Your task to perform on an android device: Add "dell xps" to the cart on amazon.com Image 0: 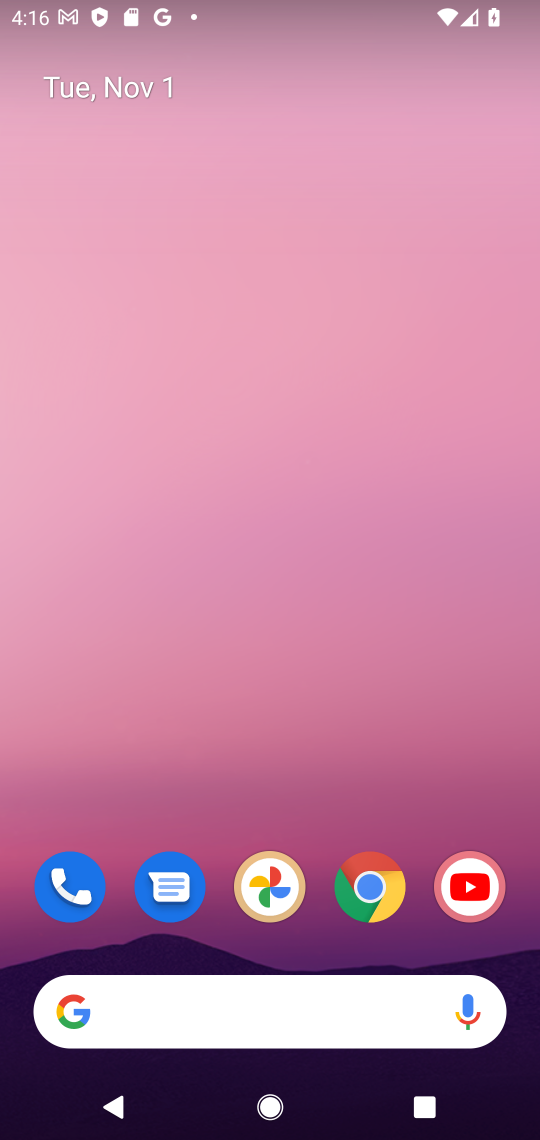
Step 0: drag from (325, 945) to (324, 157)
Your task to perform on an android device: Add "dell xps" to the cart on amazon.com Image 1: 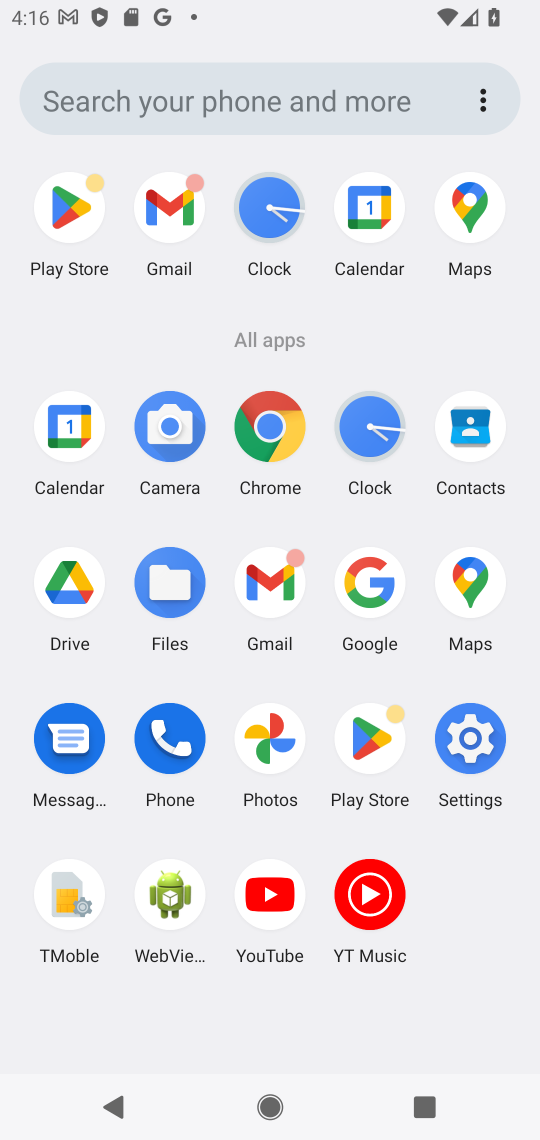
Step 1: click (277, 426)
Your task to perform on an android device: Add "dell xps" to the cart on amazon.com Image 2: 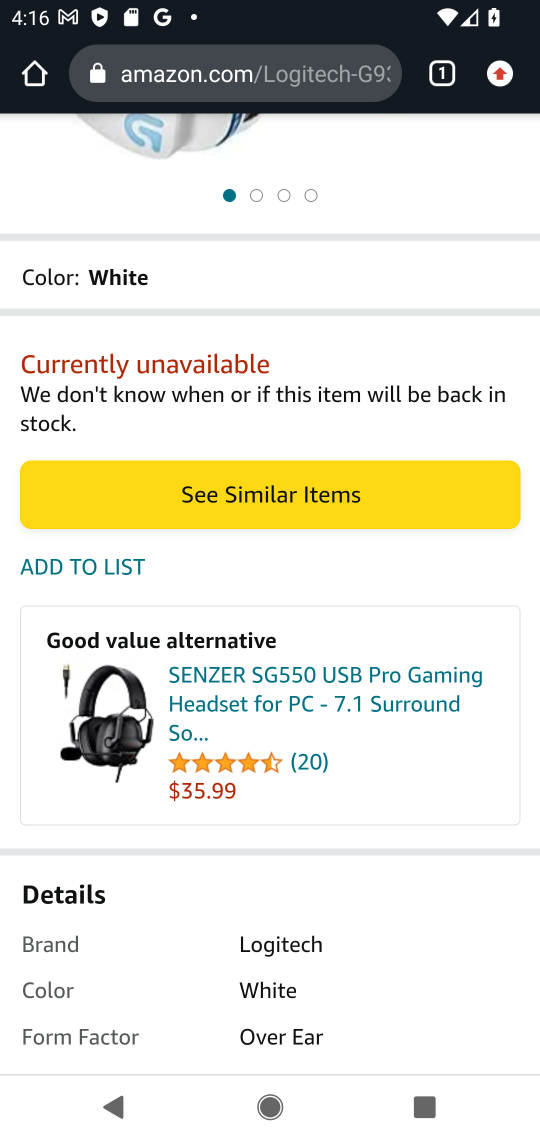
Step 2: drag from (357, 122) to (315, 655)
Your task to perform on an android device: Add "dell xps" to the cart on amazon.com Image 3: 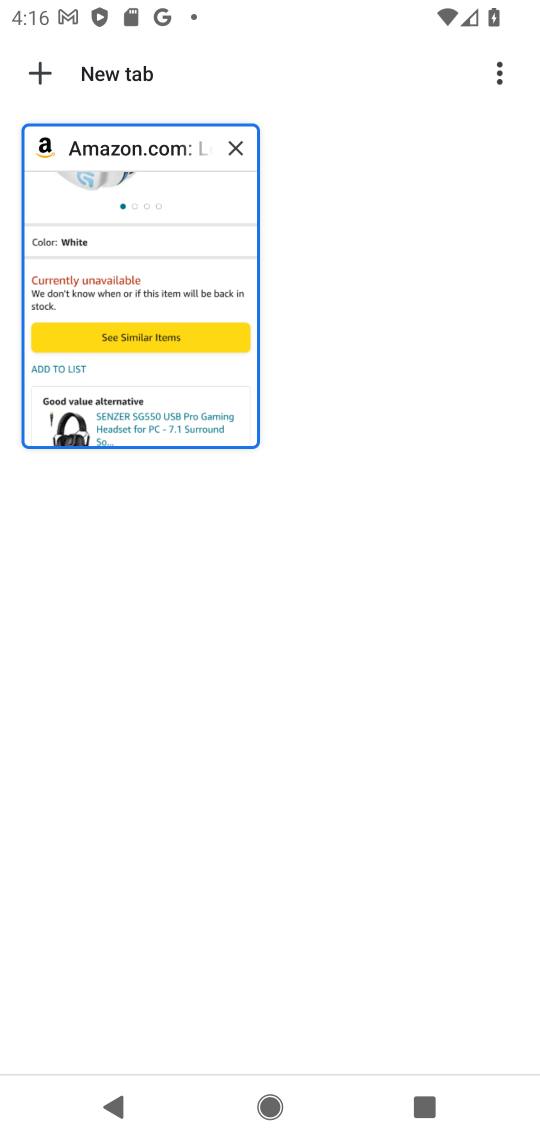
Step 3: click (91, 204)
Your task to perform on an android device: Add "dell xps" to the cart on amazon.com Image 4: 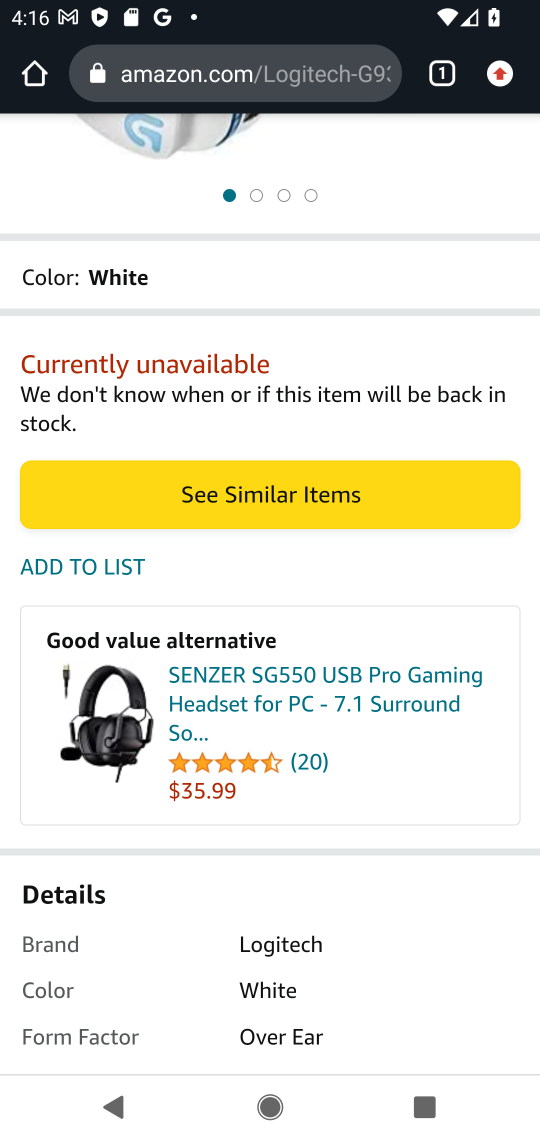
Step 4: click (256, 70)
Your task to perform on an android device: Add "dell xps" to the cart on amazon.com Image 5: 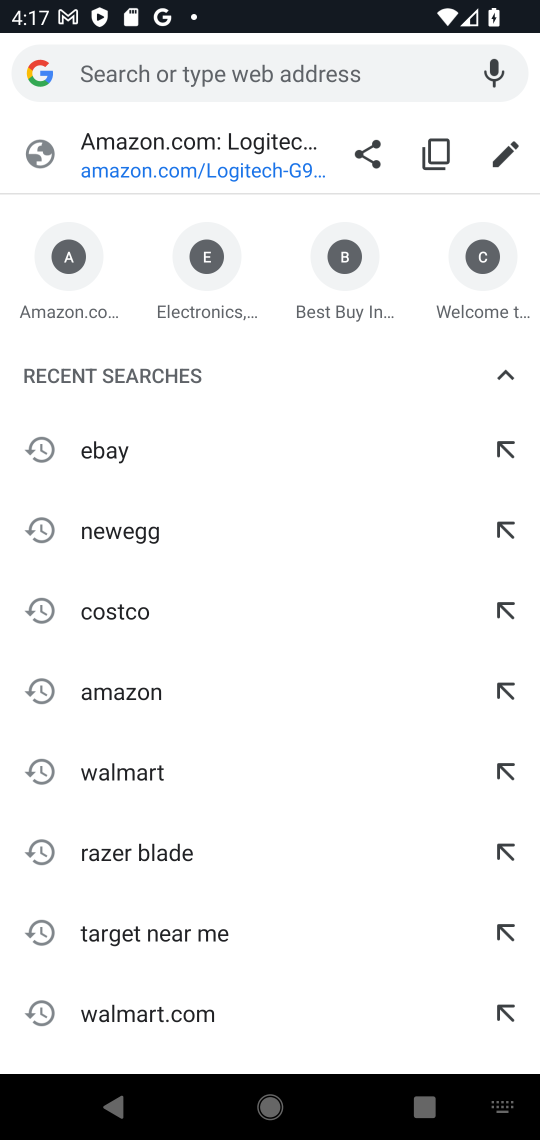
Step 5: type "amazon.com"
Your task to perform on an android device: Add "dell xps" to the cart on amazon.com Image 6: 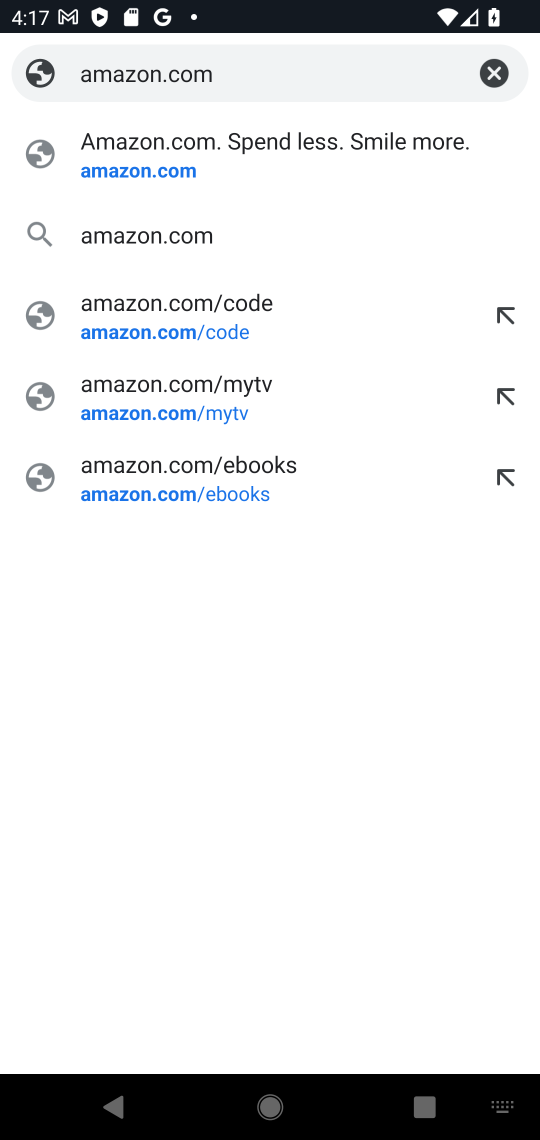
Step 6: press enter
Your task to perform on an android device: Add "dell xps" to the cart on amazon.com Image 7: 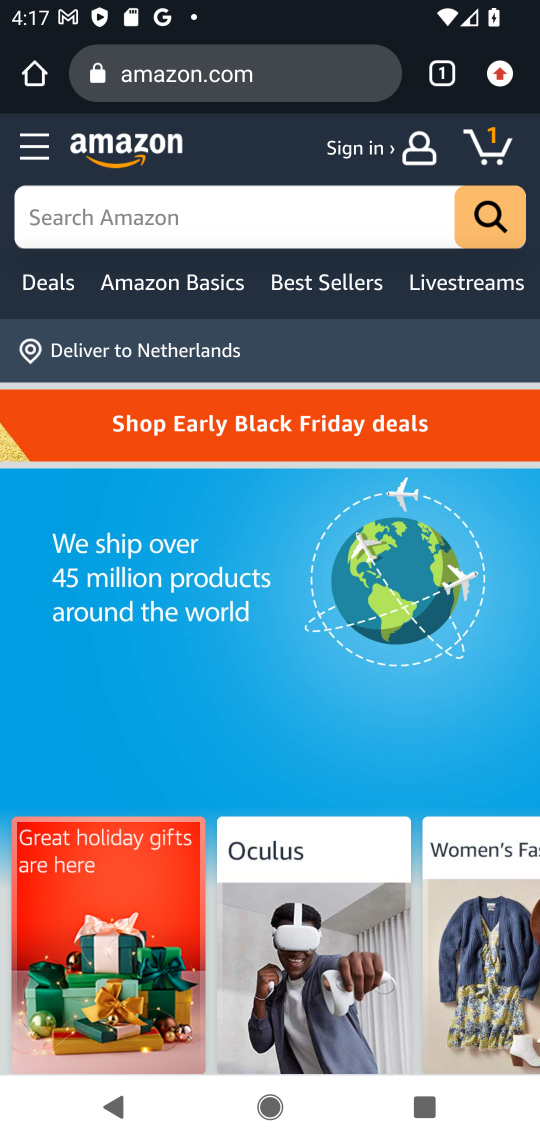
Step 7: click (385, 226)
Your task to perform on an android device: Add "dell xps" to the cart on amazon.com Image 8: 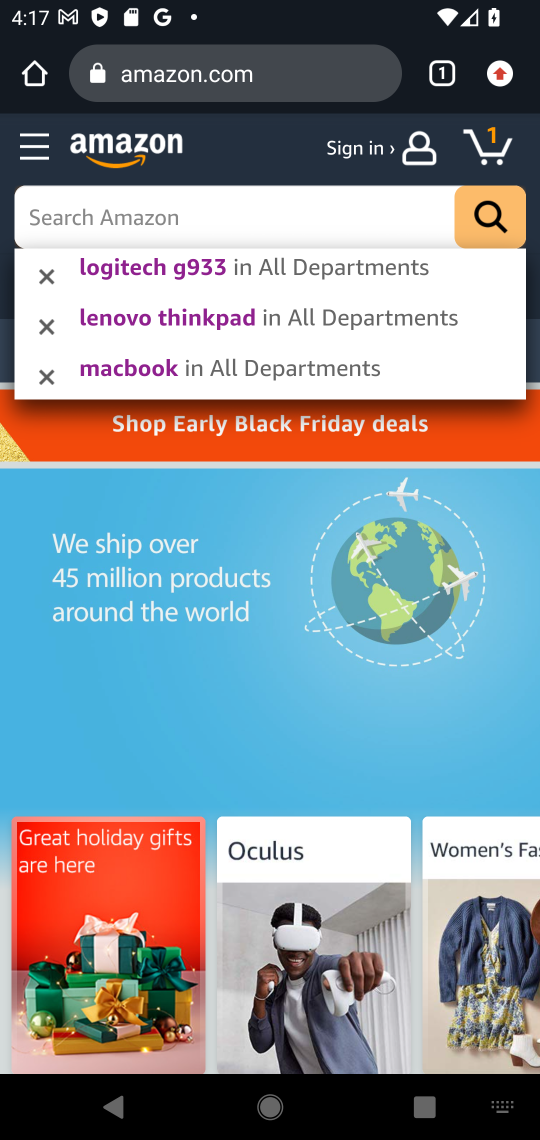
Step 8: type "dell xps"
Your task to perform on an android device: Add "dell xps" to the cart on amazon.com Image 9: 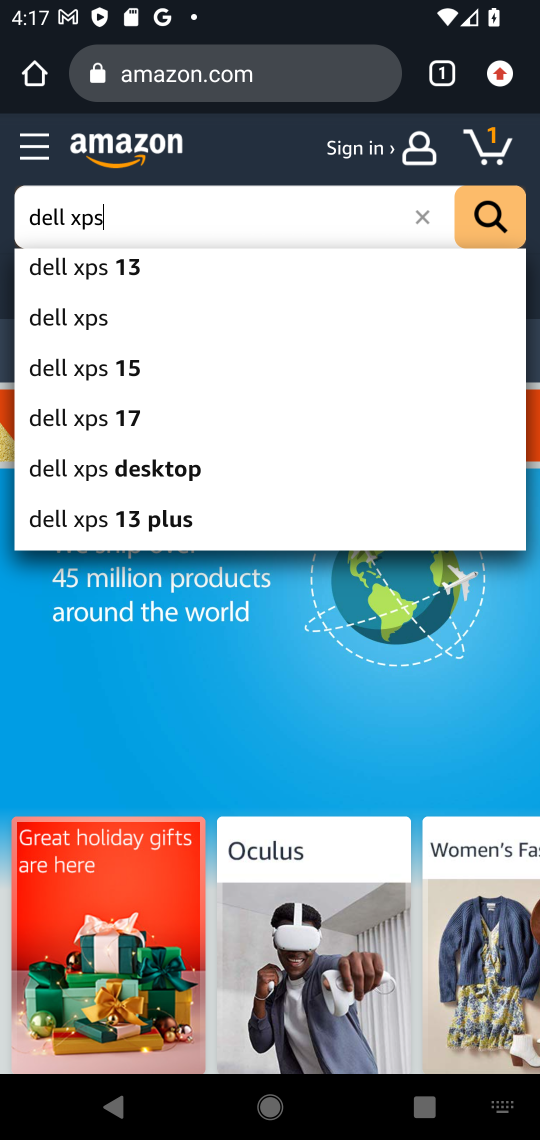
Step 9: press enter
Your task to perform on an android device: Add "dell xps" to the cart on amazon.com Image 10: 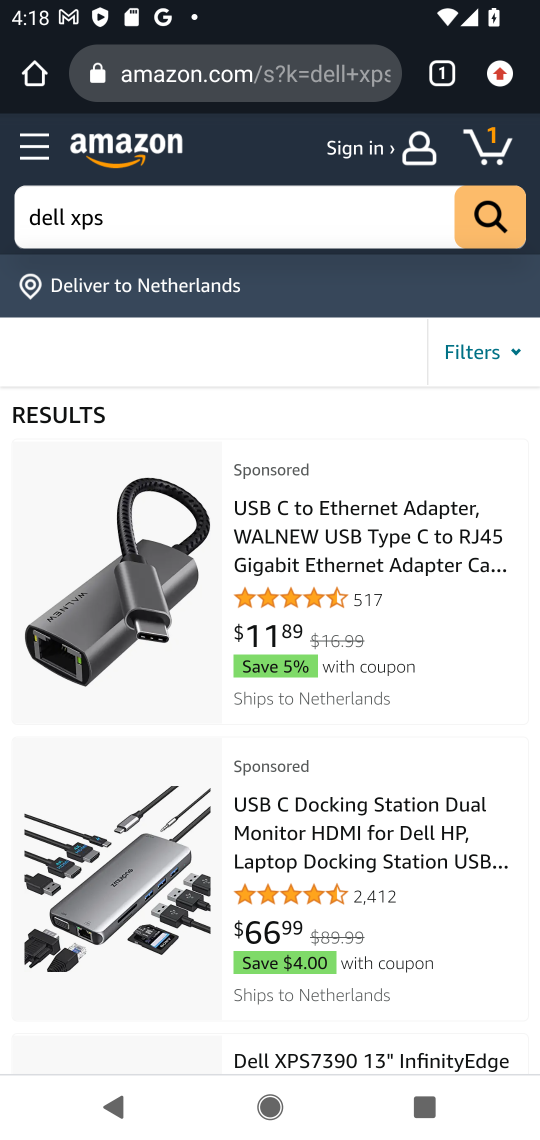
Step 10: drag from (414, 829) to (435, 122)
Your task to perform on an android device: Add "dell xps" to the cart on amazon.com Image 11: 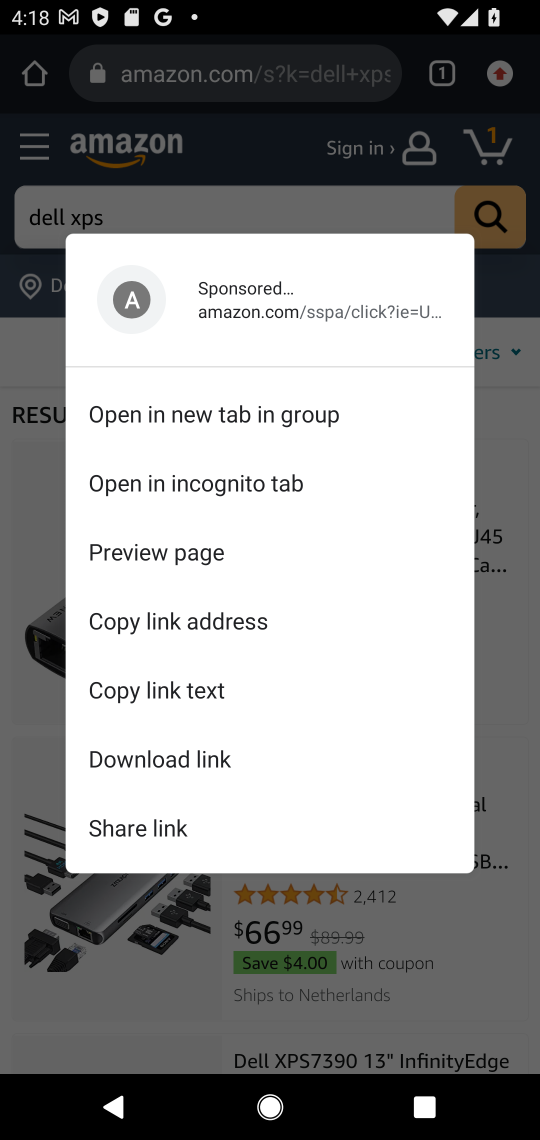
Step 11: click (391, 942)
Your task to perform on an android device: Add "dell xps" to the cart on amazon.com Image 12: 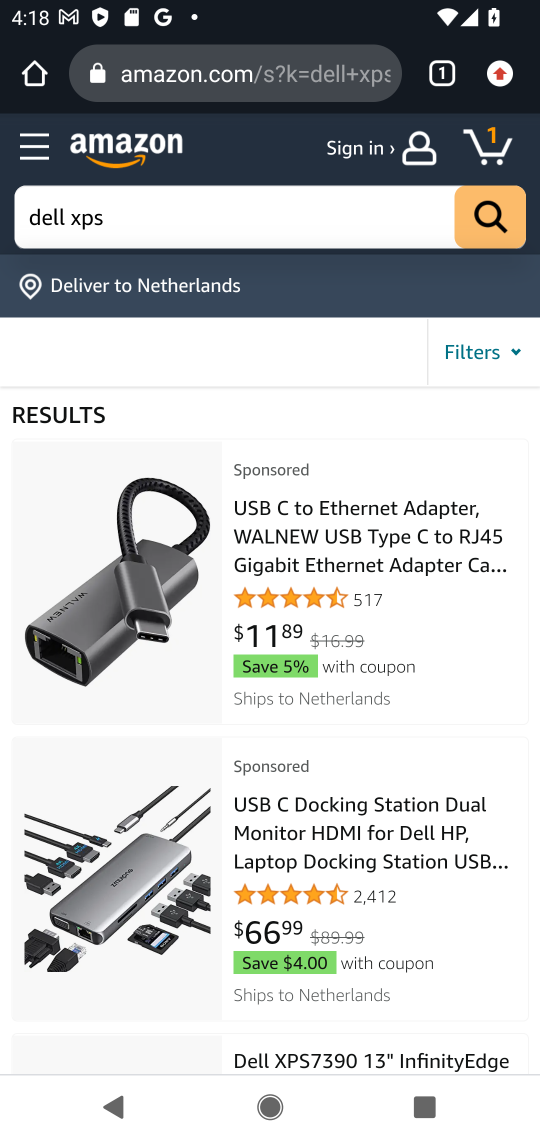
Step 12: drag from (325, 979) to (292, 274)
Your task to perform on an android device: Add "dell xps" to the cart on amazon.com Image 13: 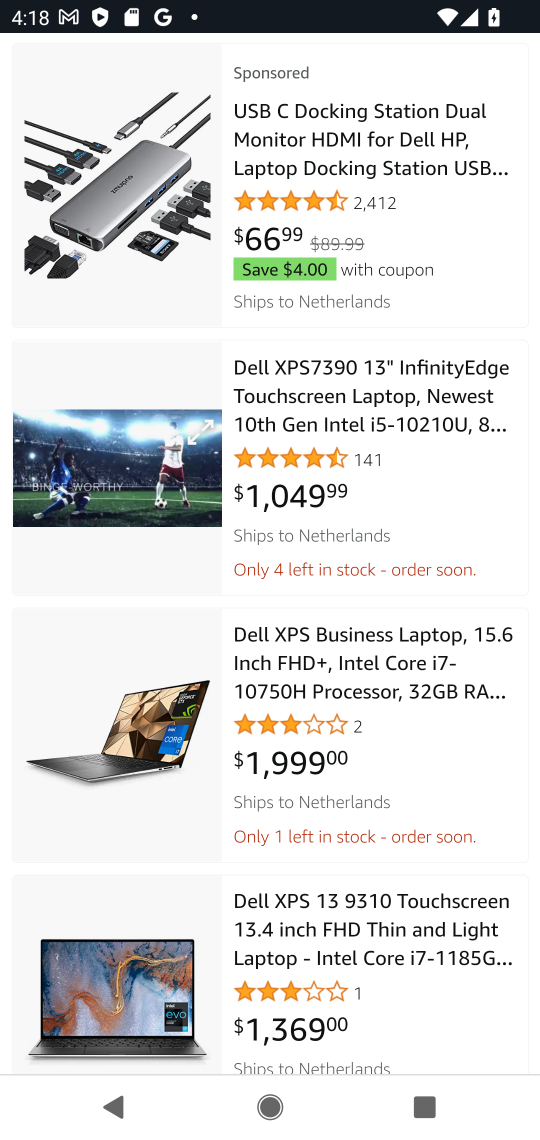
Step 13: click (305, 411)
Your task to perform on an android device: Add "dell xps" to the cart on amazon.com Image 14: 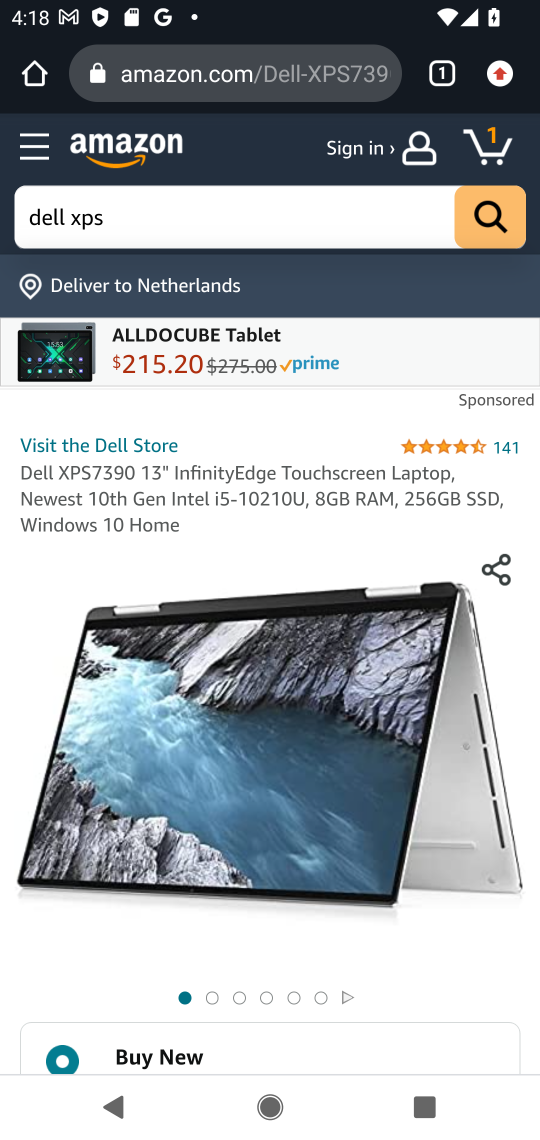
Step 14: drag from (328, 911) to (362, 341)
Your task to perform on an android device: Add "dell xps" to the cart on amazon.com Image 15: 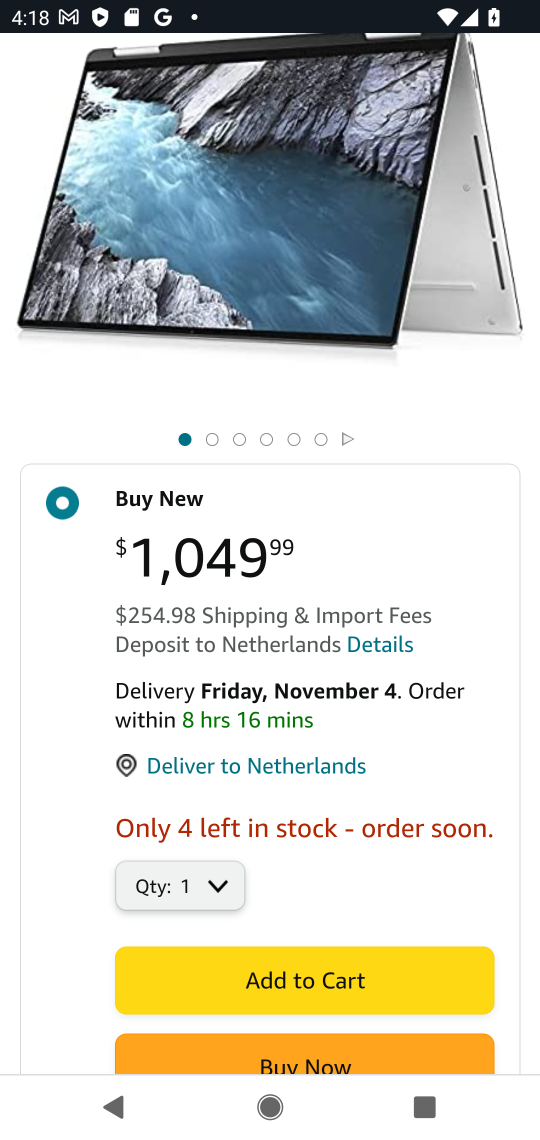
Step 15: click (353, 984)
Your task to perform on an android device: Add "dell xps" to the cart on amazon.com Image 16: 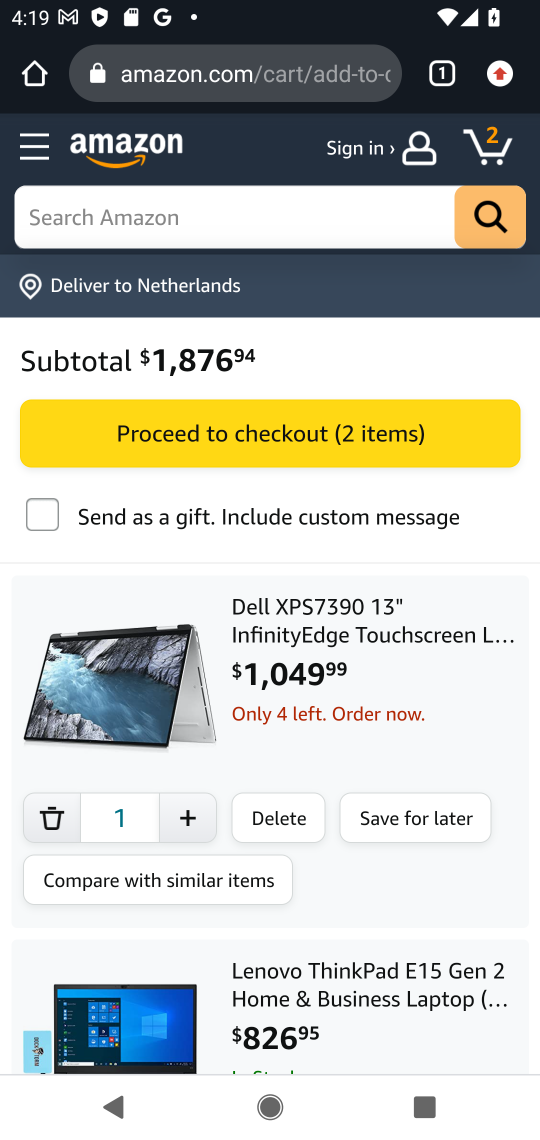
Step 16: task complete